Your task to perform on an android device: Open location settings Image 0: 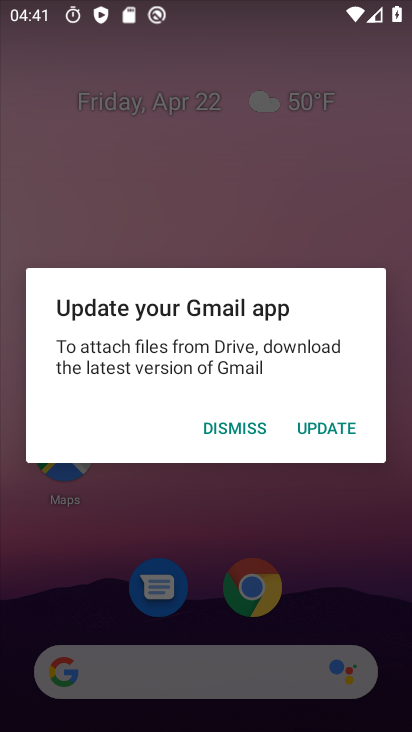
Step 0: press home button
Your task to perform on an android device: Open location settings Image 1: 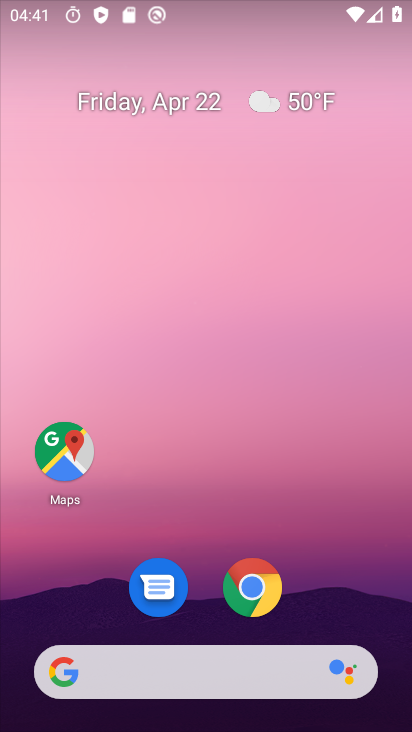
Step 1: drag from (378, 597) to (411, 483)
Your task to perform on an android device: Open location settings Image 2: 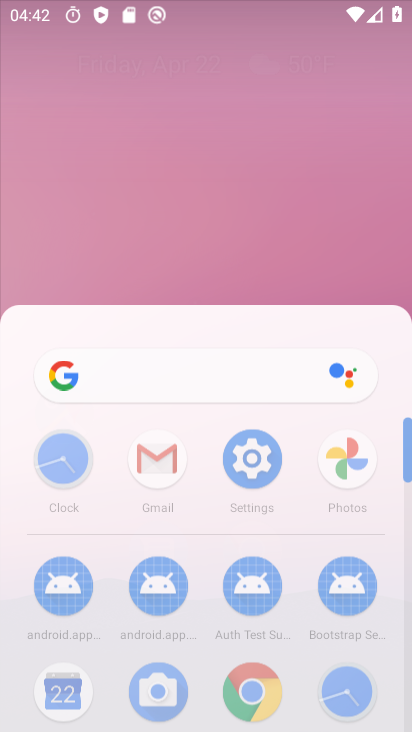
Step 2: drag from (401, 467) to (407, 365)
Your task to perform on an android device: Open location settings Image 3: 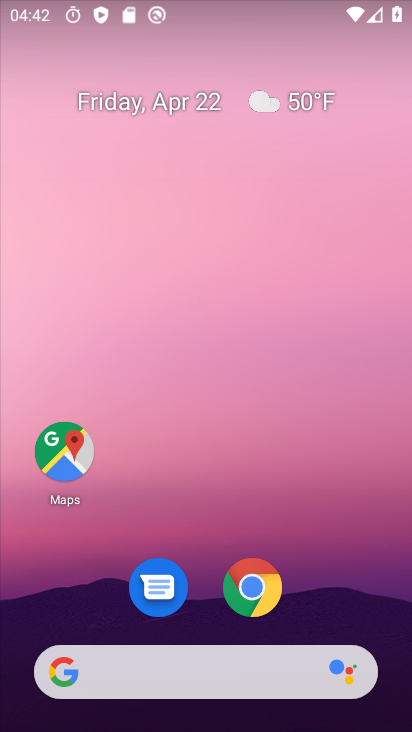
Step 3: drag from (390, 514) to (388, 22)
Your task to perform on an android device: Open location settings Image 4: 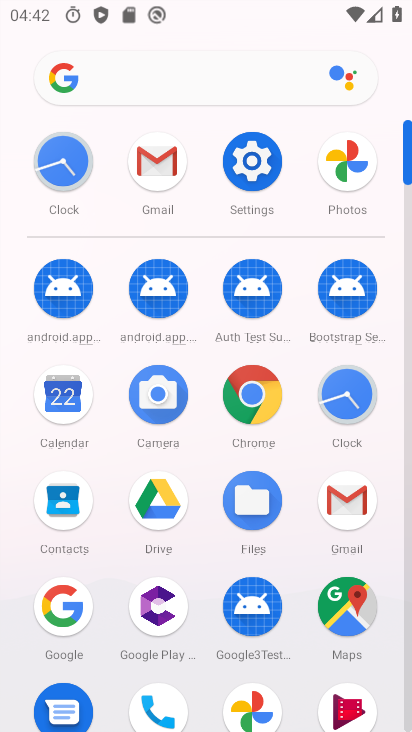
Step 4: click (247, 163)
Your task to perform on an android device: Open location settings Image 5: 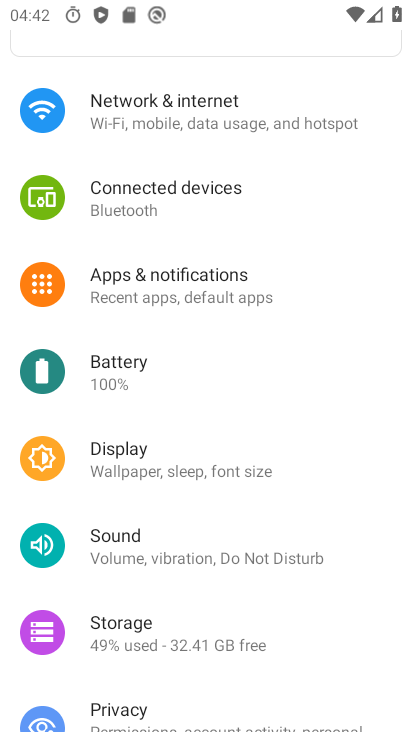
Step 5: drag from (381, 633) to (364, 408)
Your task to perform on an android device: Open location settings Image 6: 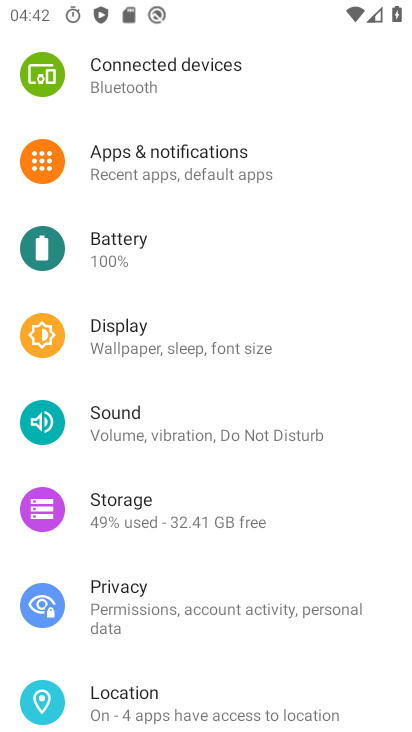
Step 6: click (144, 700)
Your task to perform on an android device: Open location settings Image 7: 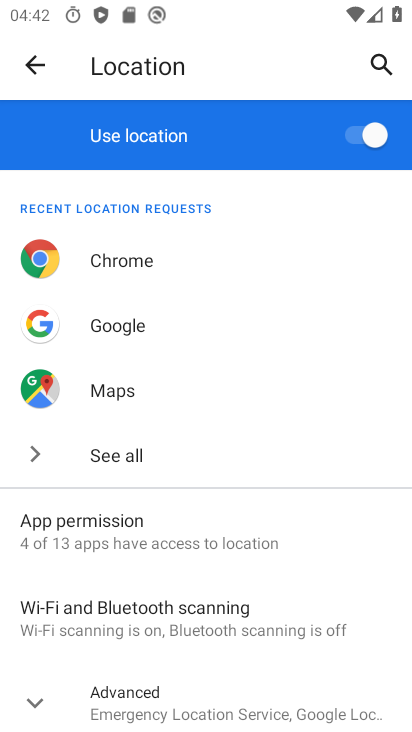
Step 7: task complete